Your task to perform on an android device: Go to Reddit.com Image 0: 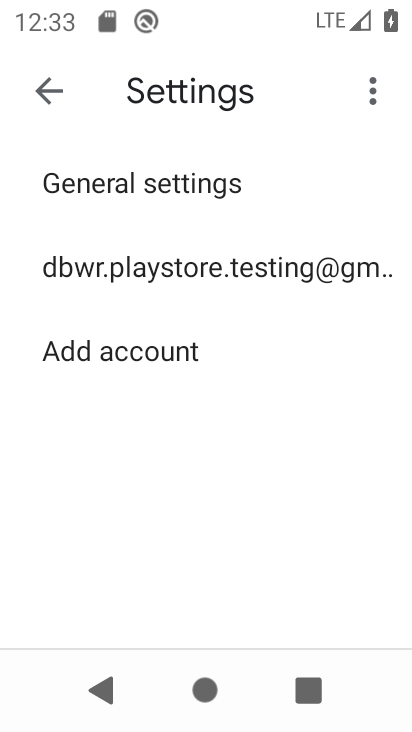
Step 0: press back button
Your task to perform on an android device: Go to Reddit.com Image 1: 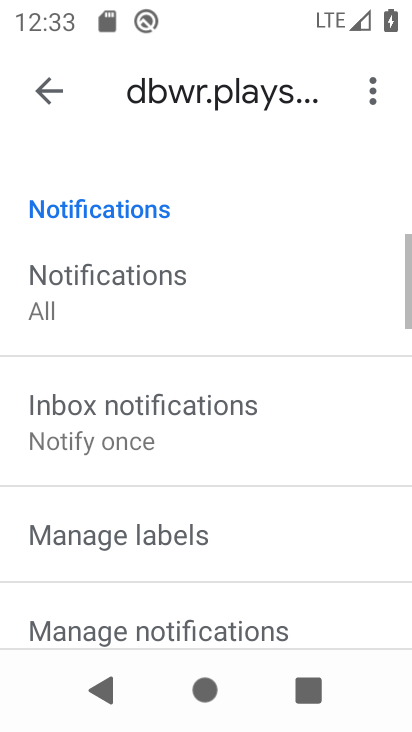
Step 1: press back button
Your task to perform on an android device: Go to Reddit.com Image 2: 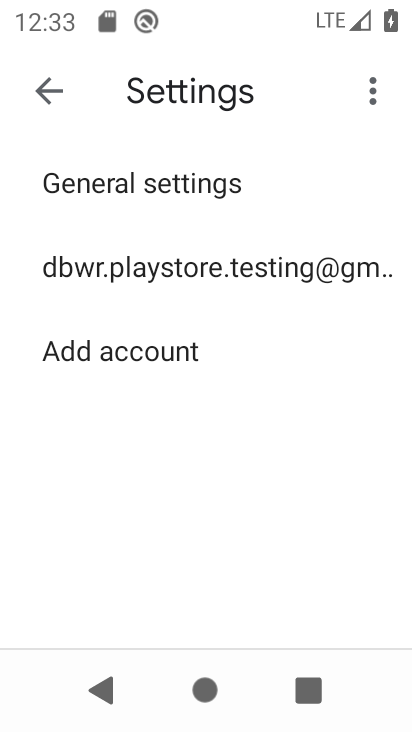
Step 2: press back button
Your task to perform on an android device: Go to Reddit.com Image 3: 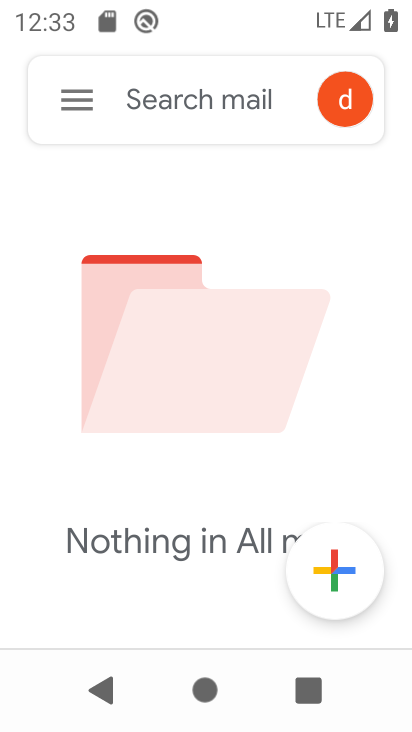
Step 3: press back button
Your task to perform on an android device: Go to Reddit.com Image 4: 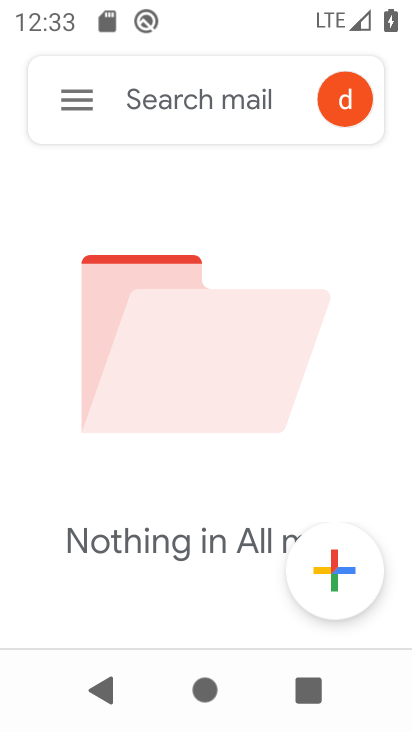
Step 4: press back button
Your task to perform on an android device: Go to Reddit.com Image 5: 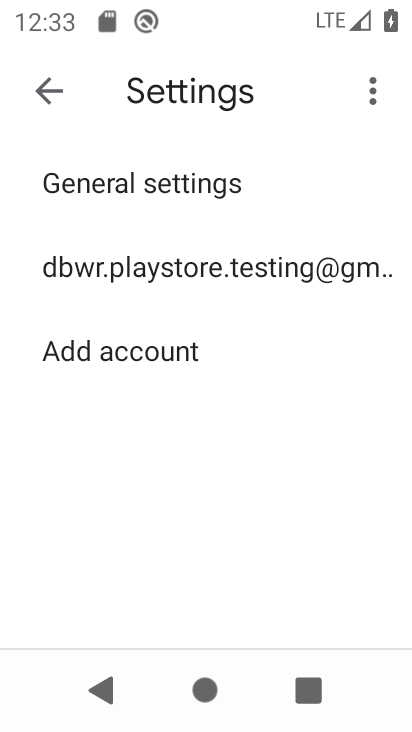
Step 5: press back button
Your task to perform on an android device: Go to Reddit.com Image 6: 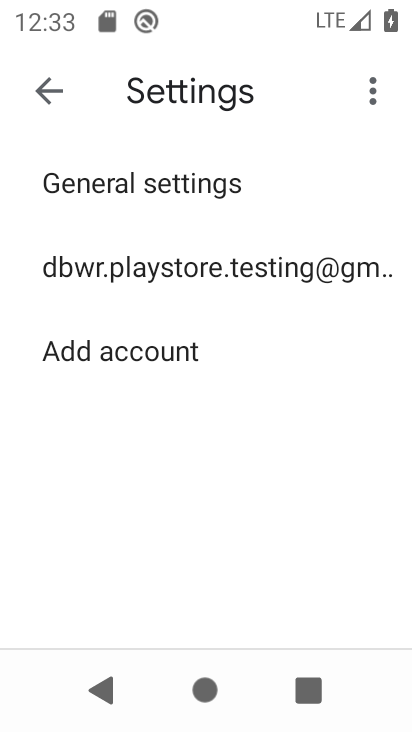
Step 6: press back button
Your task to perform on an android device: Go to Reddit.com Image 7: 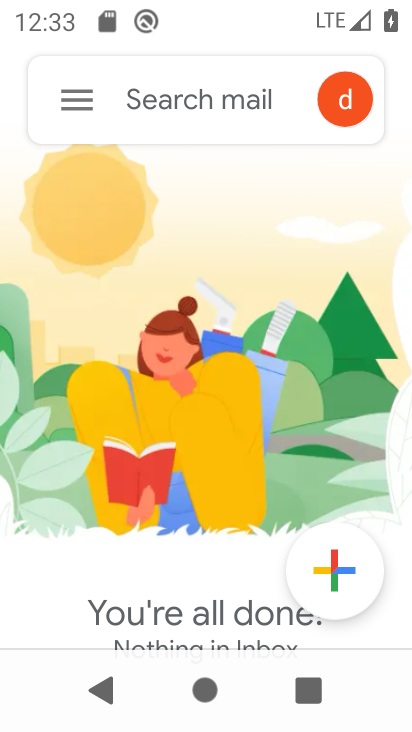
Step 7: press home button
Your task to perform on an android device: Go to Reddit.com Image 8: 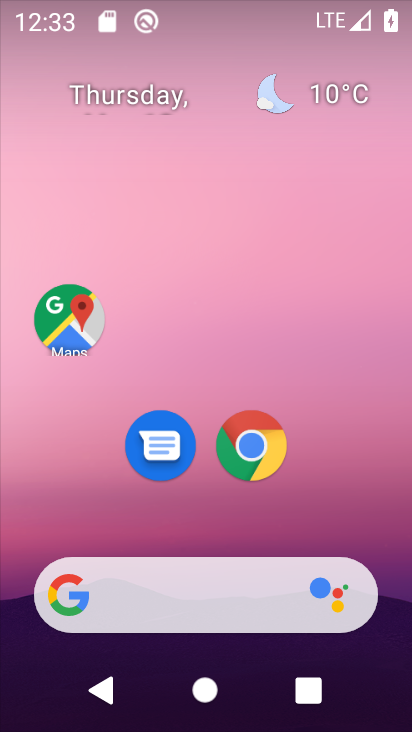
Step 8: click (264, 439)
Your task to perform on an android device: Go to Reddit.com Image 9: 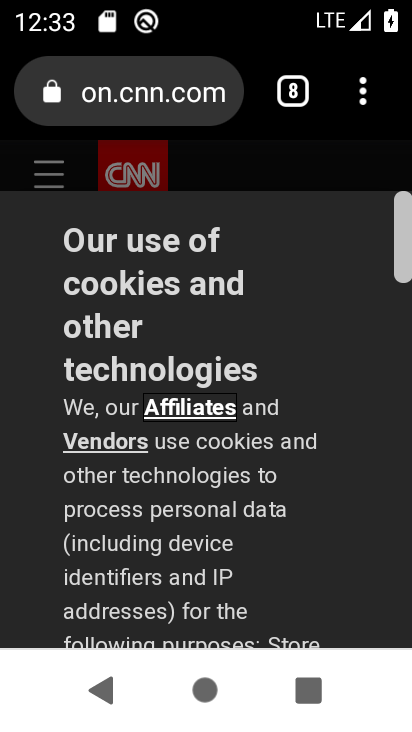
Step 9: click (286, 86)
Your task to perform on an android device: Go to Reddit.com Image 10: 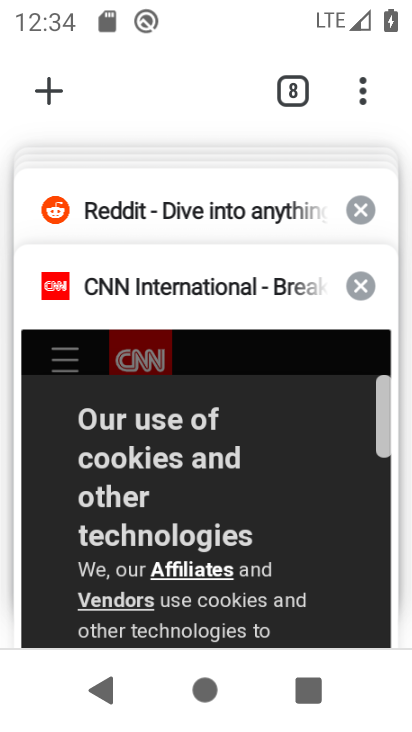
Step 10: click (129, 197)
Your task to perform on an android device: Go to Reddit.com Image 11: 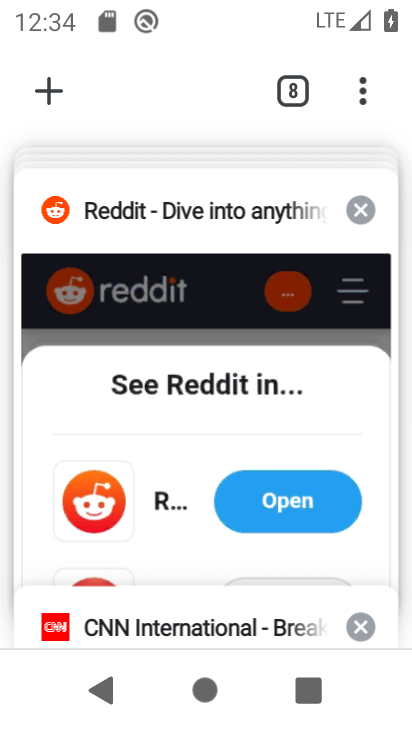
Step 11: click (128, 210)
Your task to perform on an android device: Go to Reddit.com Image 12: 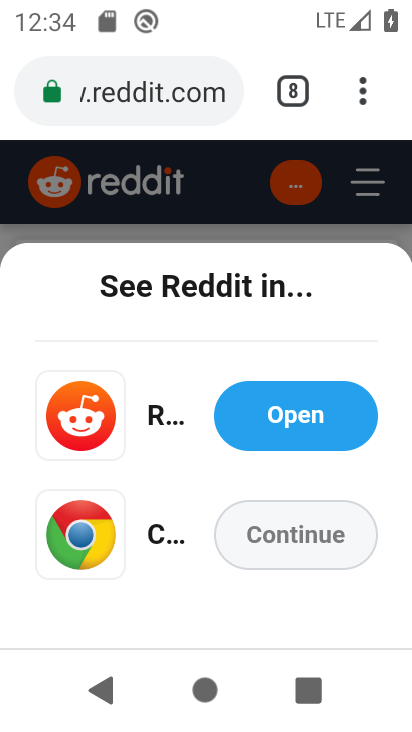
Step 12: task complete